Your task to perform on an android device: Check the weather Image 0: 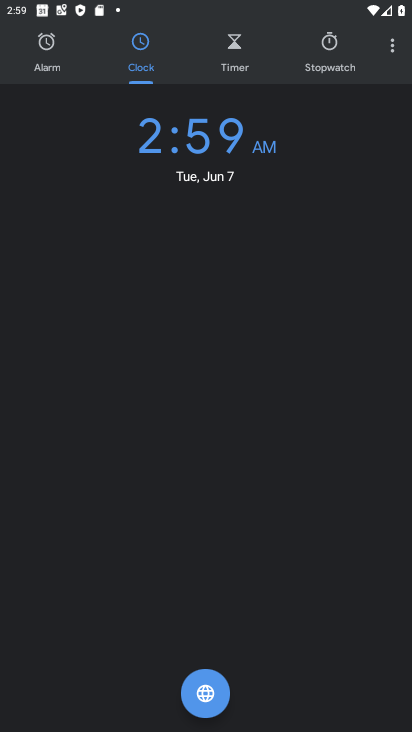
Step 0: press home button
Your task to perform on an android device: Check the weather Image 1: 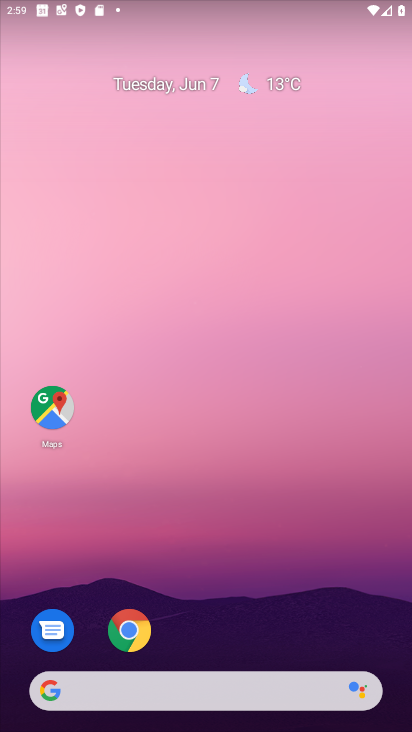
Step 1: click (271, 81)
Your task to perform on an android device: Check the weather Image 2: 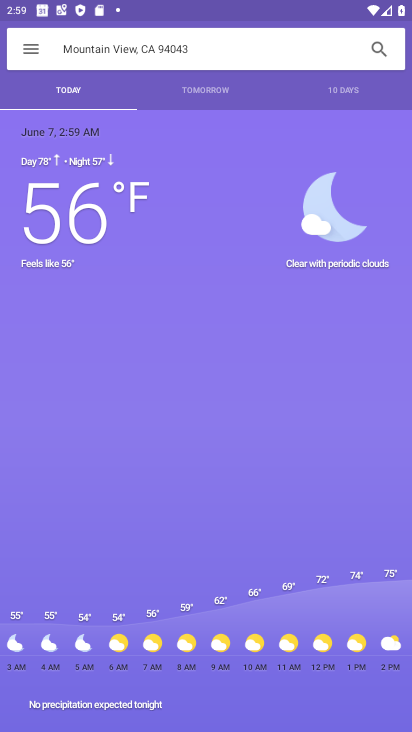
Step 2: task complete